Your task to perform on an android device: Turn on the flashlight Image 0: 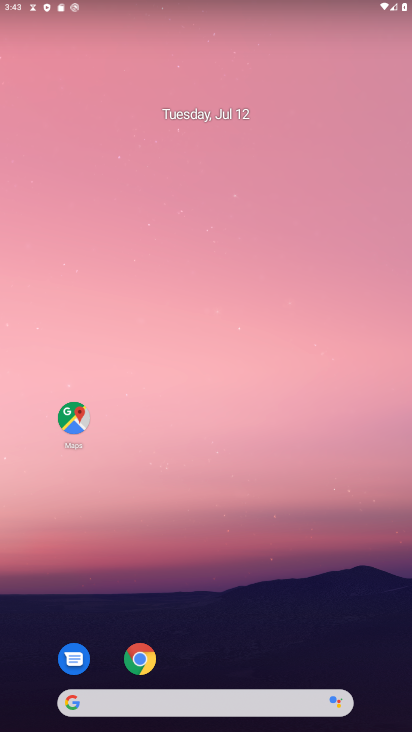
Step 0: press home button
Your task to perform on an android device: Turn on the flashlight Image 1: 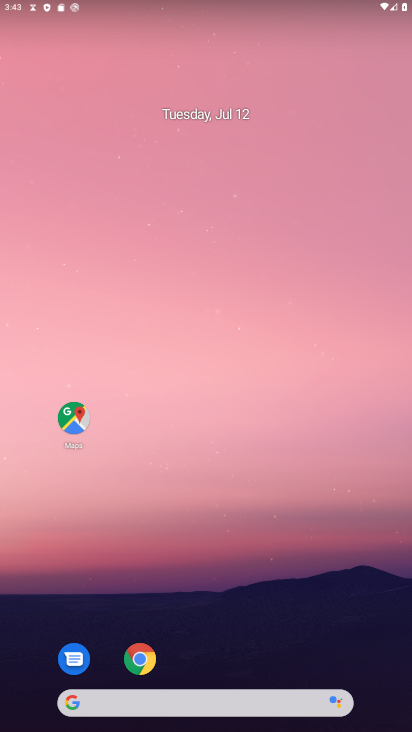
Step 1: task complete